Your task to perform on an android device: Open Amazon Image 0: 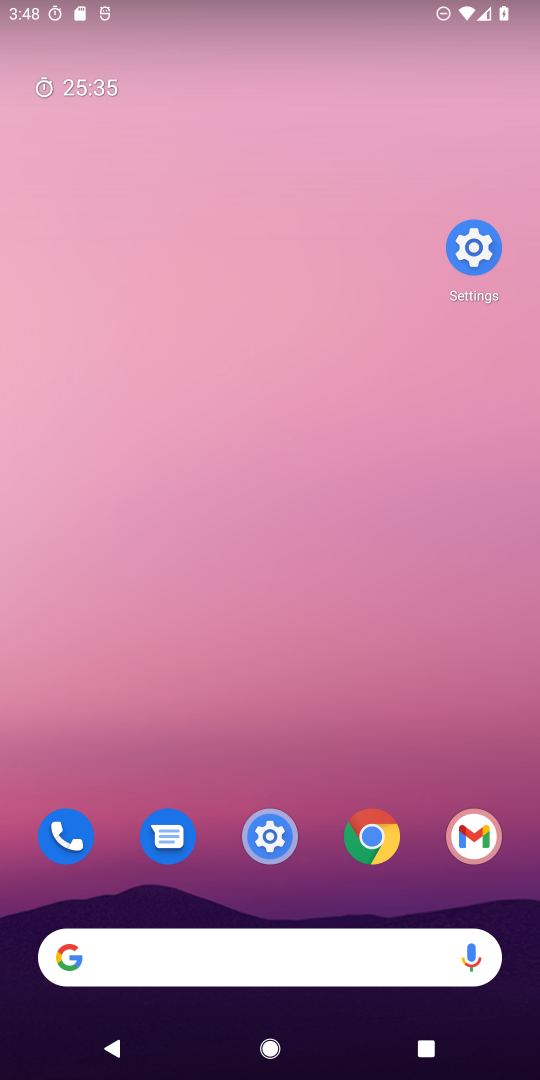
Step 0: click (365, 854)
Your task to perform on an android device: Open Amazon Image 1: 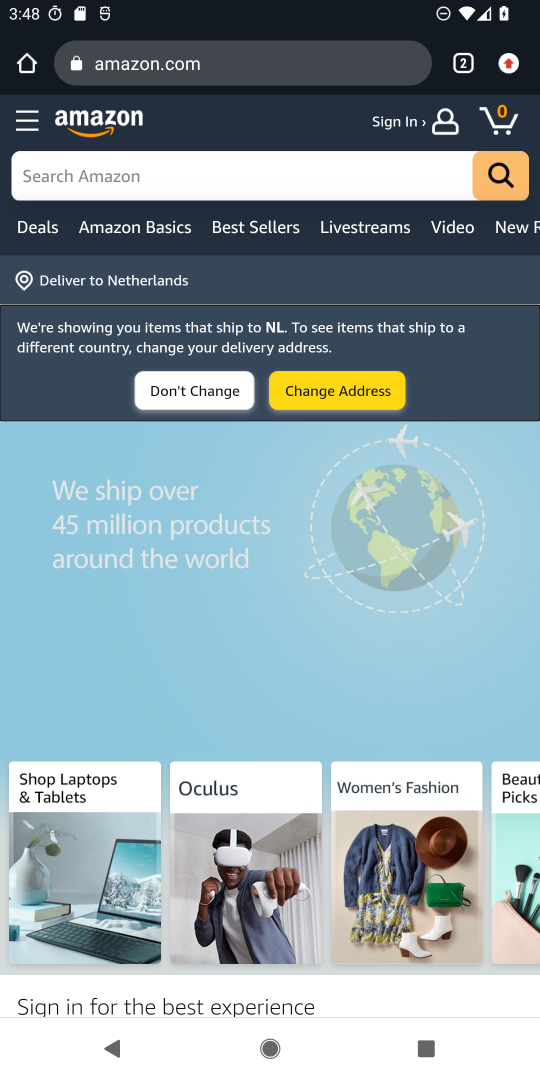
Step 1: click (91, 126)
Your task to perform on an android device: Open Amazon Image 2: 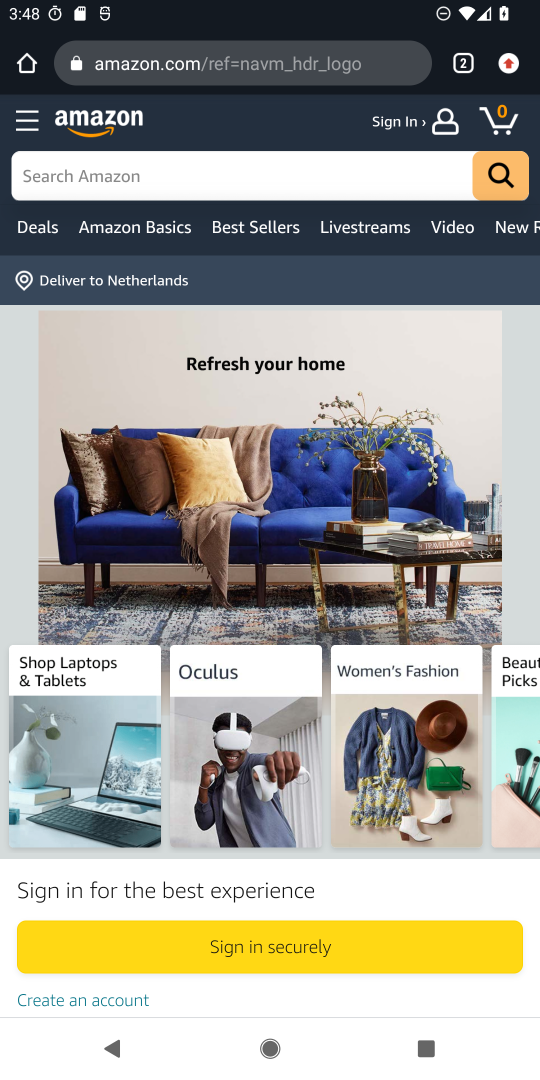
Step 2: click (104, 119)
Your task to perform on an android device: Open Amazon Image 3: 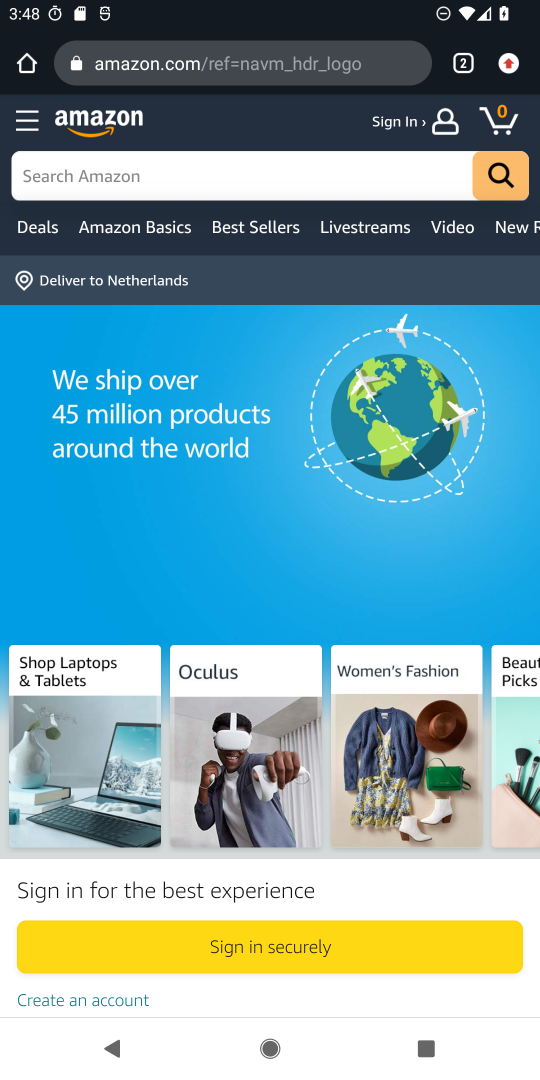
Step 3: task complete